Your task to perform on an android device: open app "Messenger Lite" (install if not already installed), go to login, and select forgot password Image 0: 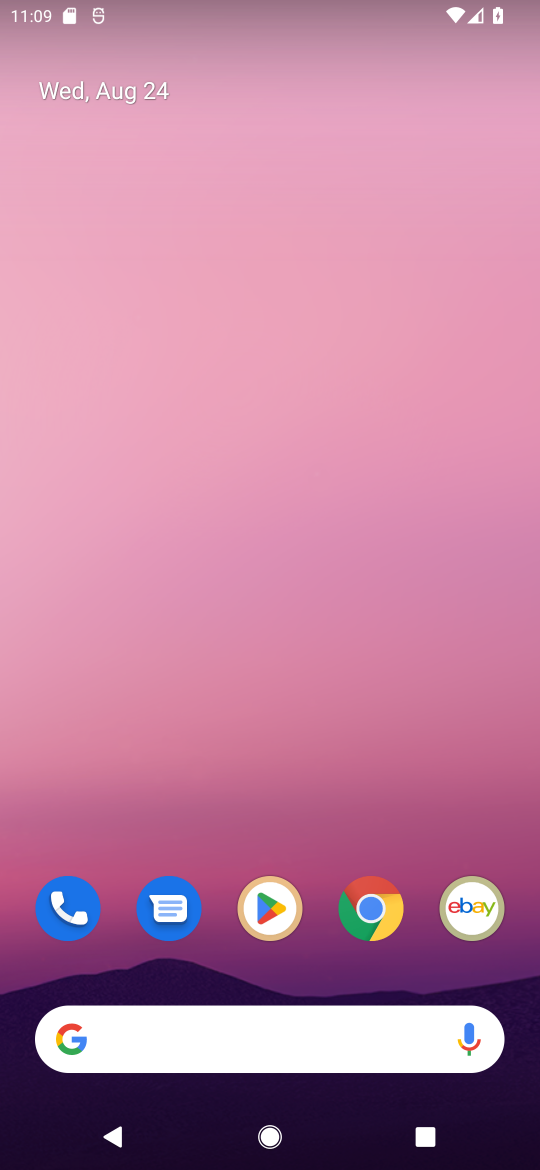
Step 0: drag from (287, 980) to (243, 164)
Your task to perform on an android device: open app "Messenger Lite" (install if not already installed), go to login, and select forgot password Image 1: 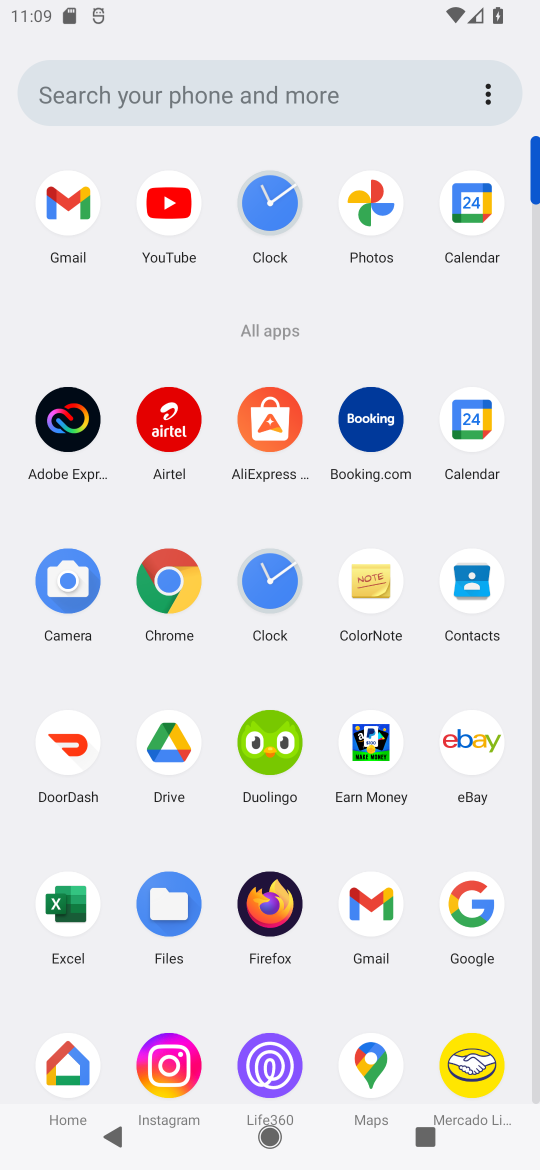
Step 1: drag from (323, 984) to (313, 351)
Your task to perform on an android device: open app "Messenger Lite" (install if not already installed), go to login, and select forgot password Image 2: 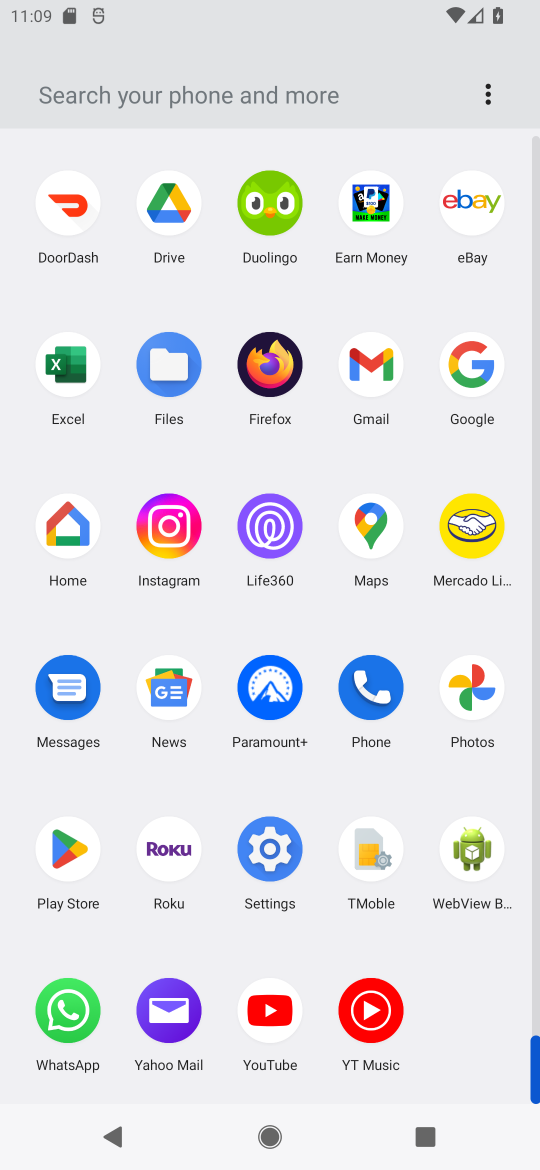
Step 2: click (62, 838)
Your task to perform on an android device: open app "Messenger Lite" (install if not already installed), go to login, and select forgot password Image 3: 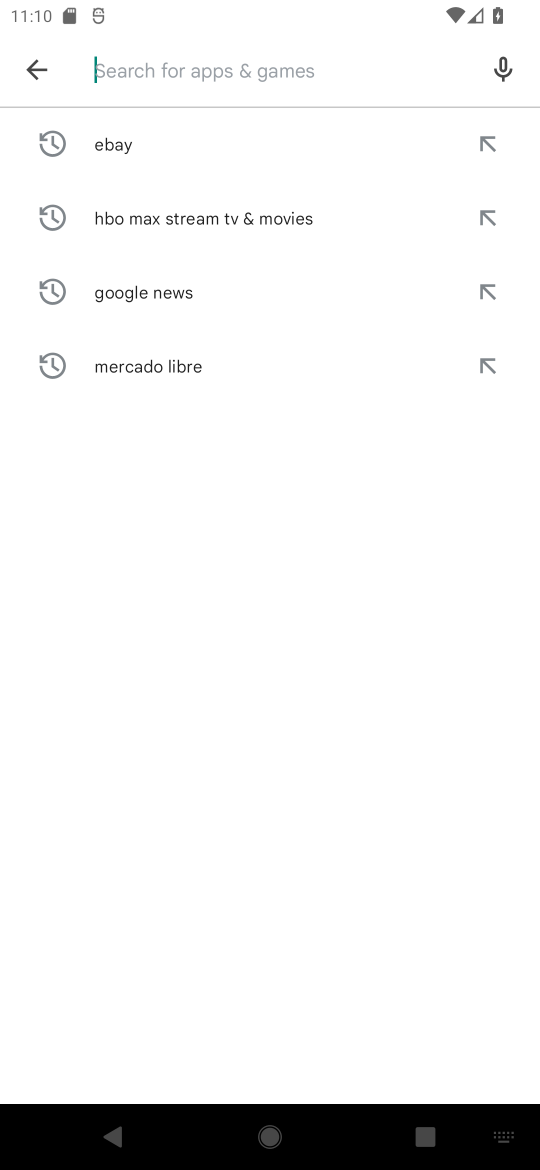
Step 3: type "Messenger Lit"
Your task to perform on an android device: open app "Messenger Lite" (install if not already installed), go to login, and select forgot password Image 4: 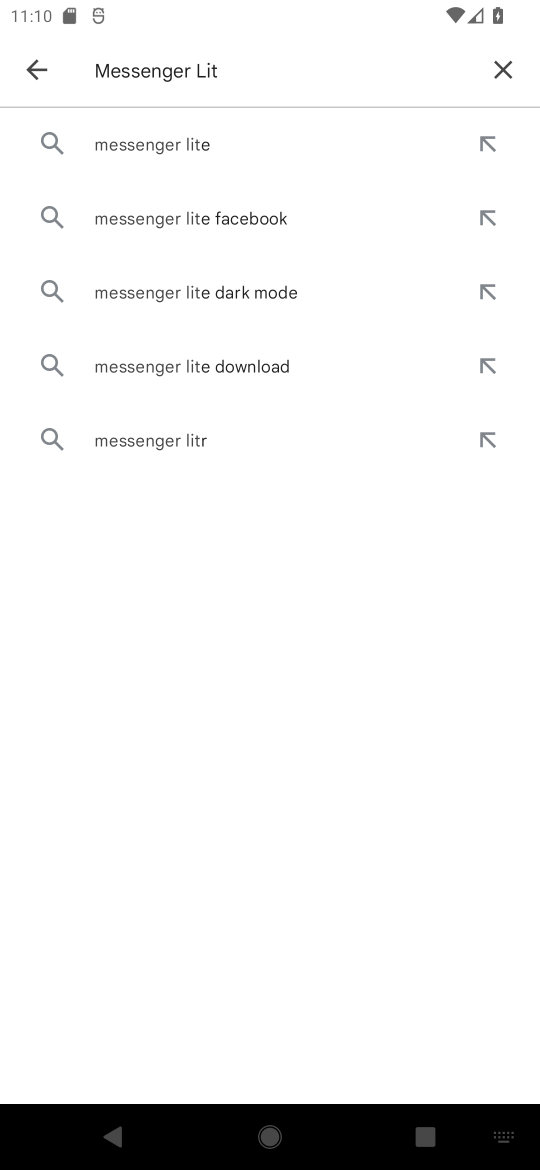
Step 4: click (175, 160)
Your task to perform on an android device: open app "Messenger Lite" (install if not already installed), go to login, and select forgot password Image 5: 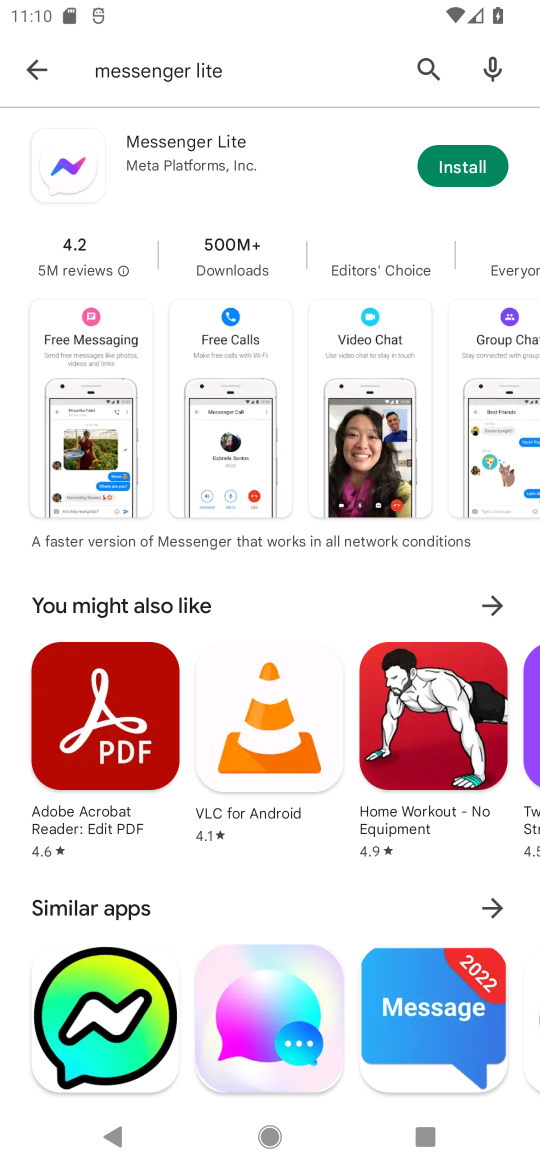
Step 5: click (175, 160)
Your task to perform on an android device: open app "Messenger Lite" (install if not already installed), go to login, and select forgot password Image 6: 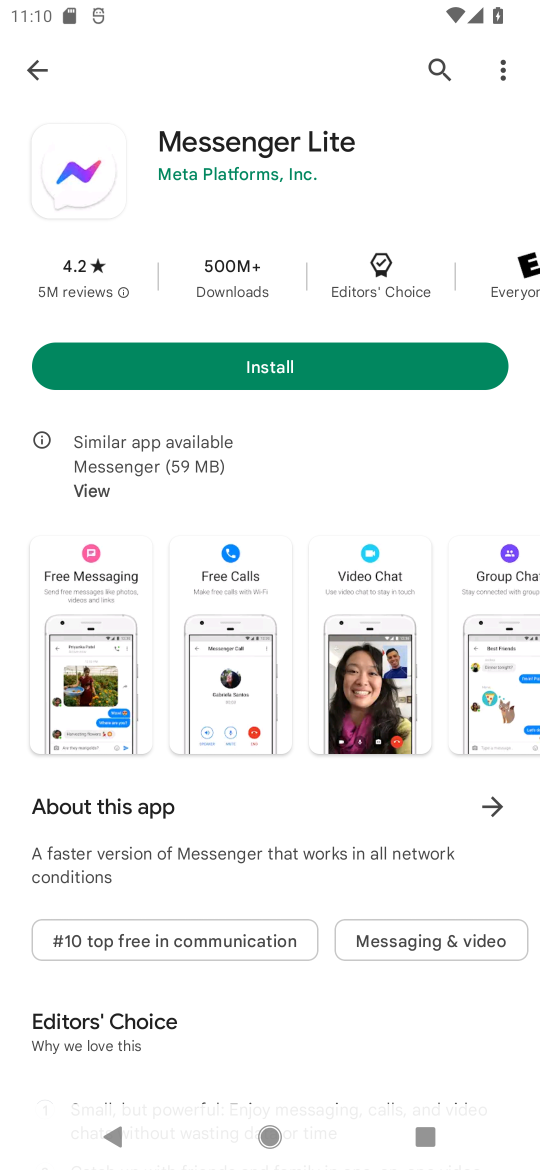
Step 6: click (287, 363)
Your task to perform on an android device: open app "Messenger Lite" (install if not already installed), go to login, and select forgot password Image 7: 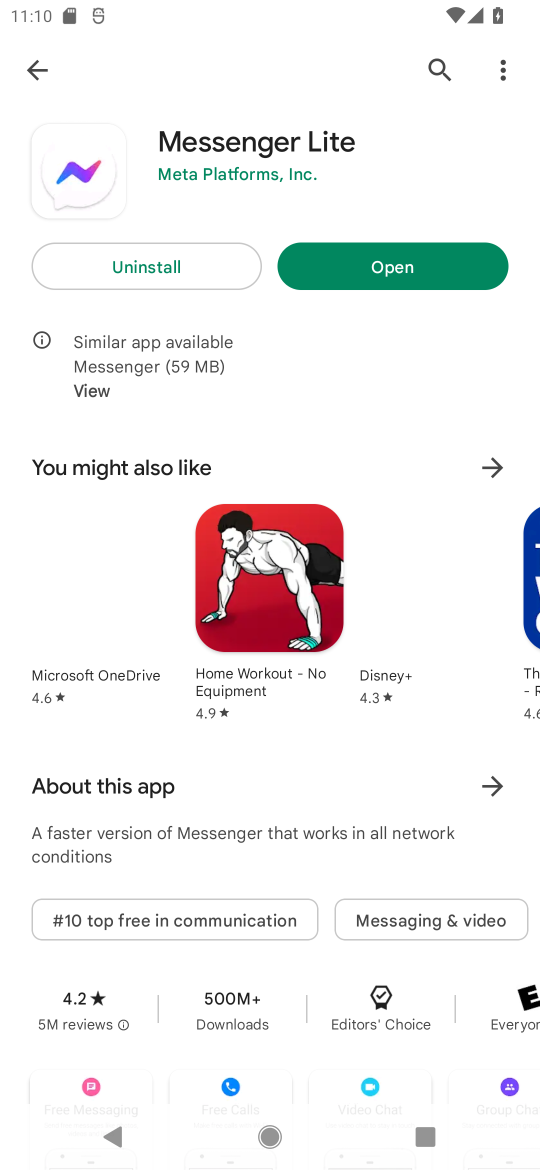
Step 7: click (428, 292)
Your task to perform on an android device: open app "Messenger Lite" (install if not already installed), go to login, and select forgot password Image 8: 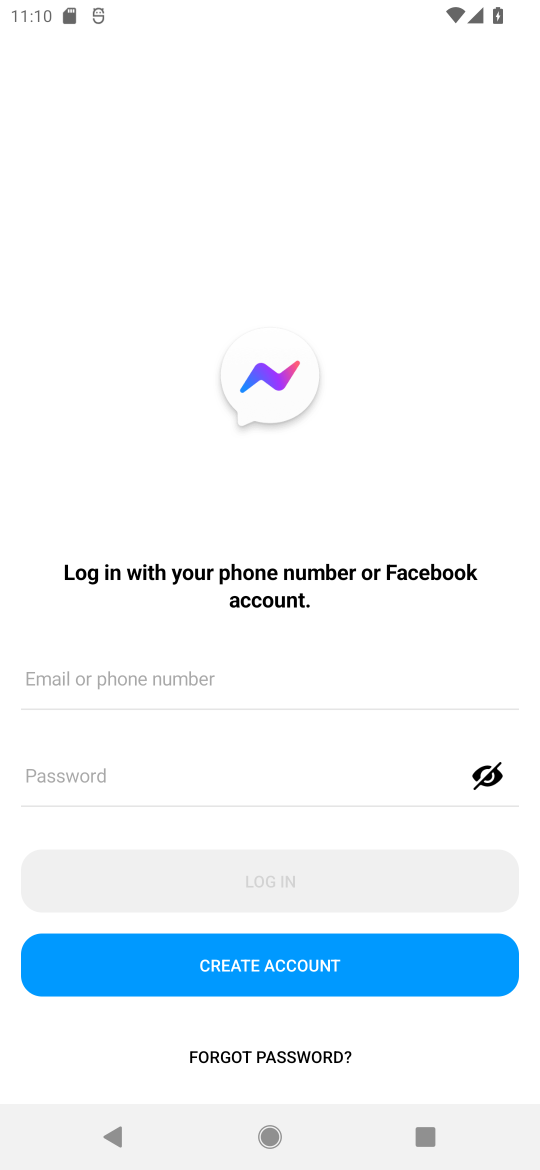
Step 8: click (250, 1059)
Your task to perform on an android device: open app "Messenger Lite" (install if not already installed), go to login, and select forgot password Image 9: 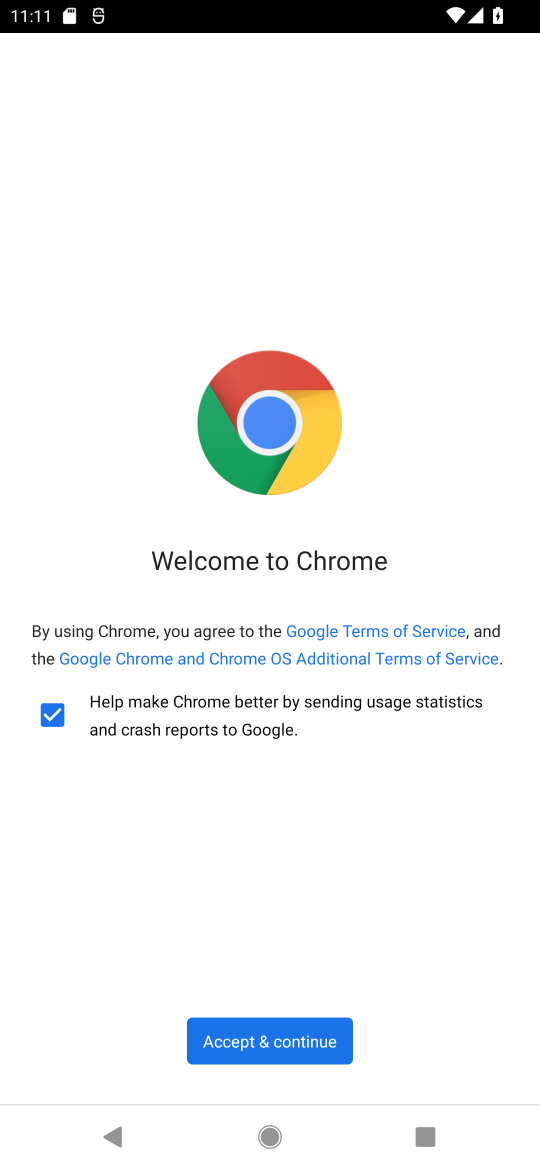
Step 9: task complete